Your task to perform on an android device: turn pop-ups on in chrome Image 0: 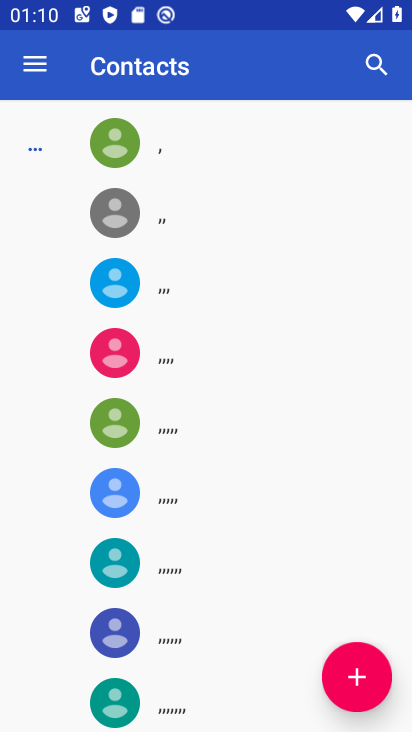
Step 0: press home button
Your task to perform on an android device: turn pop-ups on in chrome Image 1: 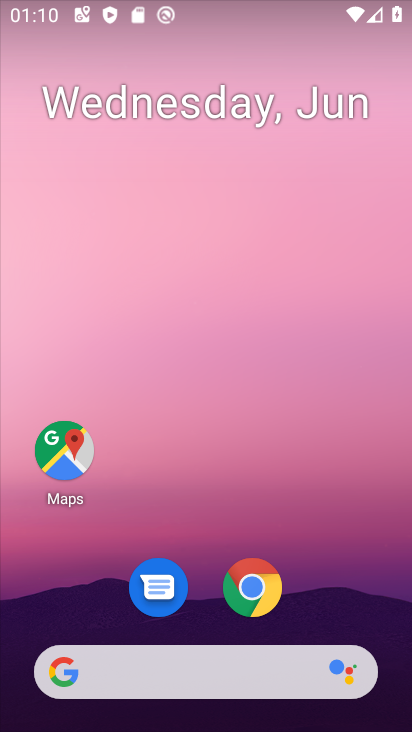
Step 1: click (253, 594)
Your task to perform on an android device: turn pop-ups on in chrome Image 2: 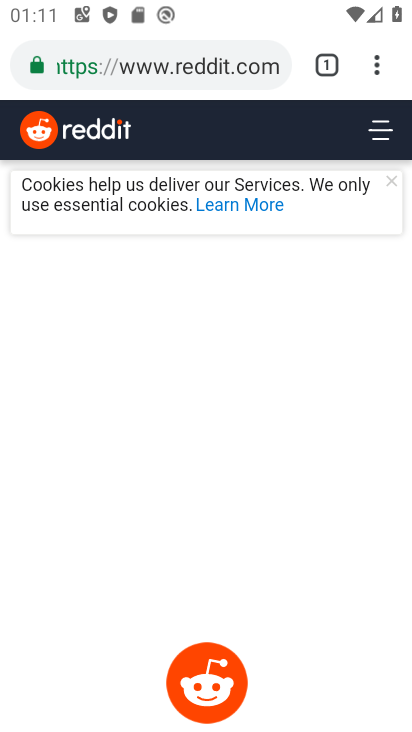
Step 2: drag from (378, 57) to (172, 638)
Your task to perform on an android device: turn pop-ups on in chrome Image 3: 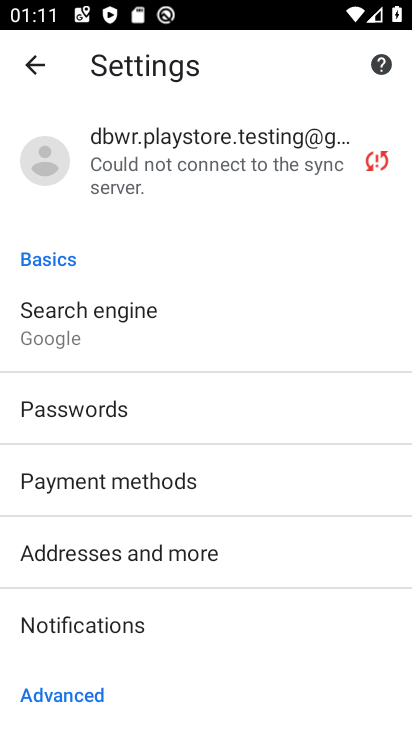
Step 3: drag from (163, 392) to (174, 176)
Your task to perform on an android device: turn pop-ups on in chrome Image 4: 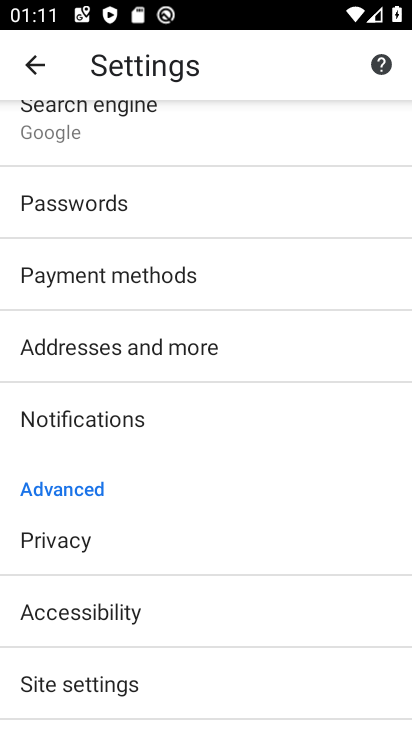
Step 4: click (71, 690)
Your task to perform on an android device: turn pop-ups on in chrome Image 5: 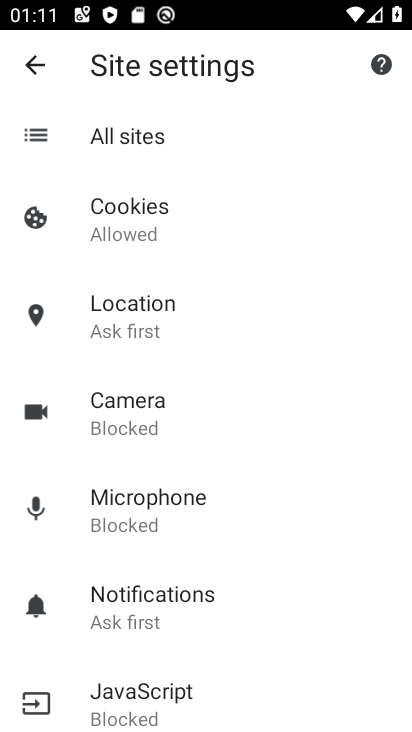
Step 5: drag from (286, 562) to (267, 148)
Your task to perform on an android device: turn pop-ups on in chrome Image 6: 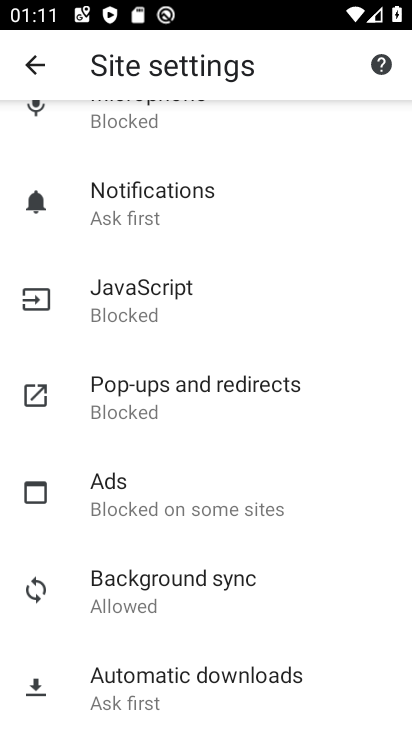
Step 6: click (192, 409)
Your task to perform on an android device: turn pop-ups on in chrome Image 7: 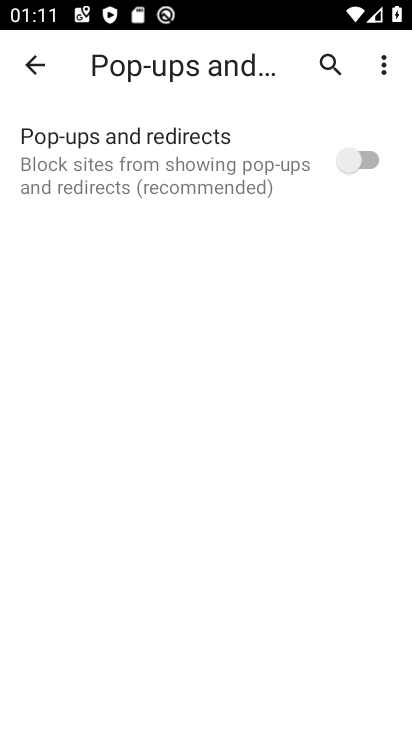
Step 7: click (362, 161)
Your task to perform on an android device: turn pop-ups on in chrome Image 8: 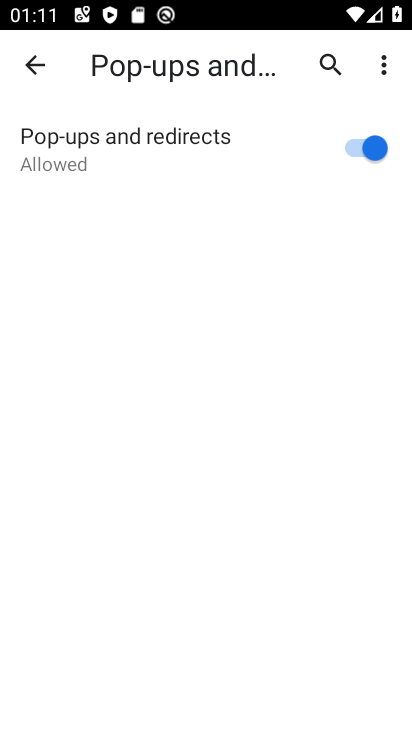
Step 8: task complete